Your task to perform on an android device: Set the phone to "Do not disturb". Image 0: 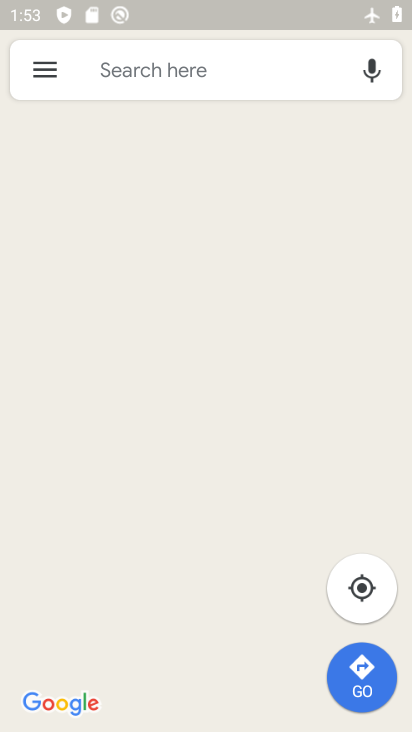
Step 0: press home button
Your task to perform on an android device: Set the phone to "Do not disturb". Image 1: 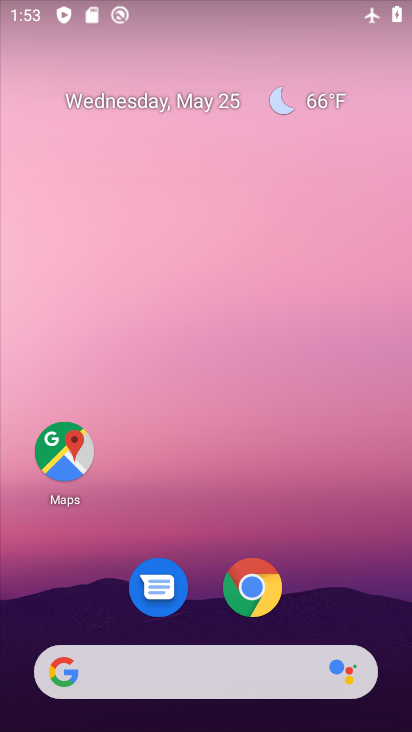
Step 1: drag from (351, 616) to (378, 336)
Your task to perform on an android device: Set the phone to "Do not disturb". Image 2: 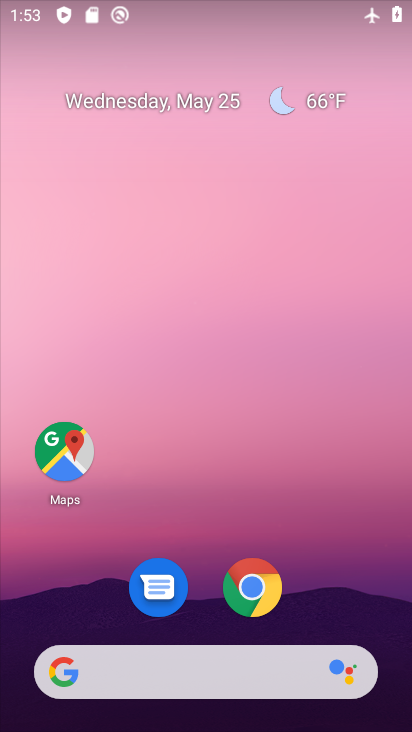
Step 2: drag from (388, 625) to (381, 188)
Your task to perform on an android device: Set the phone to "Do not disturb". Image 3: 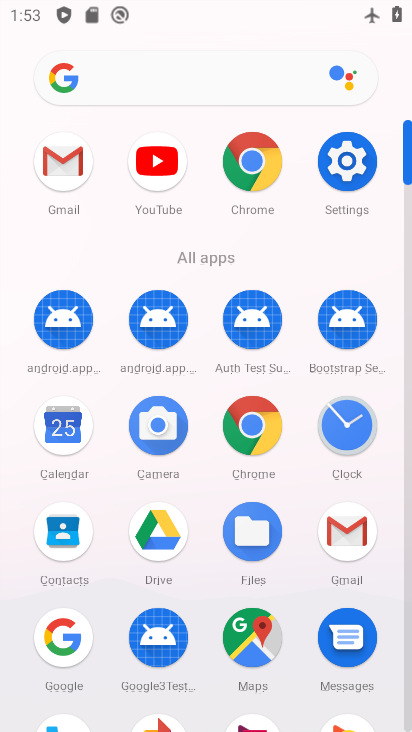
Step 3: click (343, 186)
Your task to perform on an android device: Set the phone to "Do not disturb". Image 4: 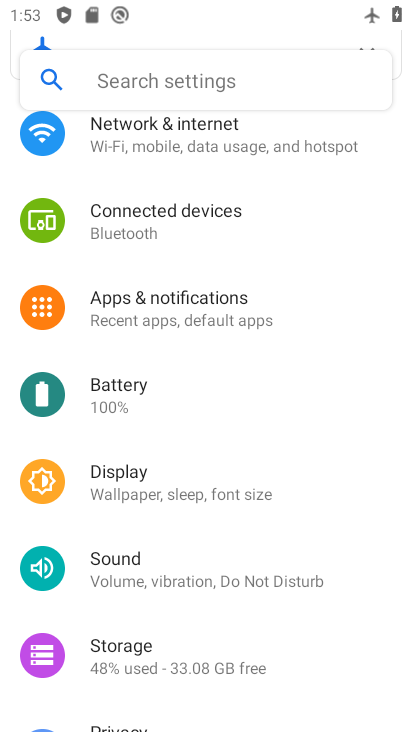
Step 4: drag from (351, 555) to (354, 372)
Your task to perform on an android device: Set the phone to "Do not disturb". Image 5: 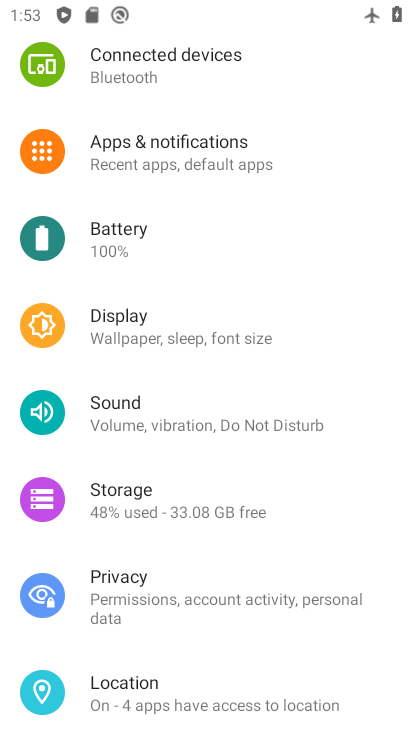
Step 5: drag from (368, 580) to (354, 426)
Your task to perform on an android device: Set the phone to "Do not disturb". Image 6: 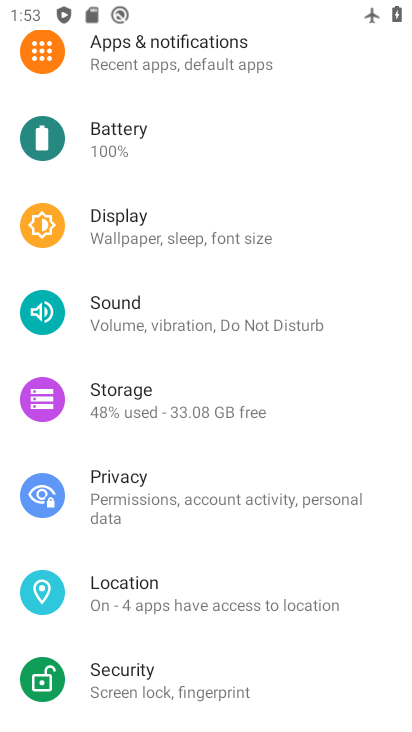
Step 6: drag from (359, 622) to (358, 483)
Your task to perform on an android device: Set the phone to "Do not disturb". Image 7: 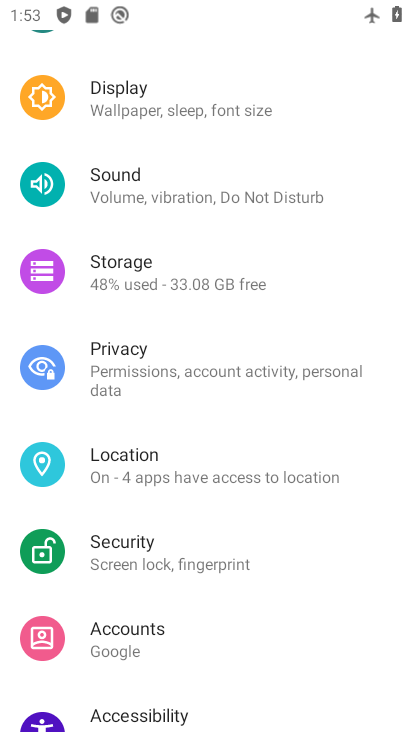
Step 7: drag from (371, 650) to (376, 450)
Your task to perform on an android device: Set the phone to "Do not disturb". Image 8: 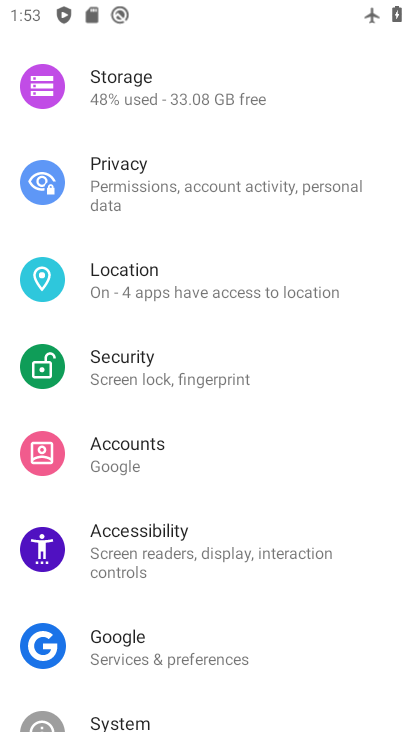
Step 8: drag from (362, 652) to (355, 471)
Your task to perform on an android device: Set the phone to "Do not disturb". Image 9: 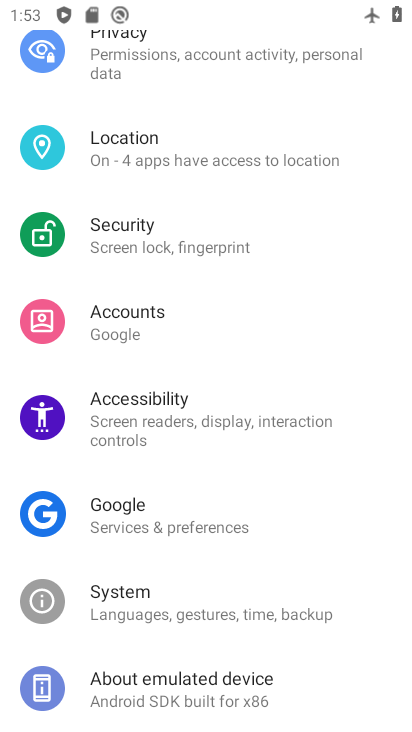
Step 9: drag from (340, 635) to (347, 443)
Your task to perform on an android device: Set the phone to "Do not disturb". Image 10: 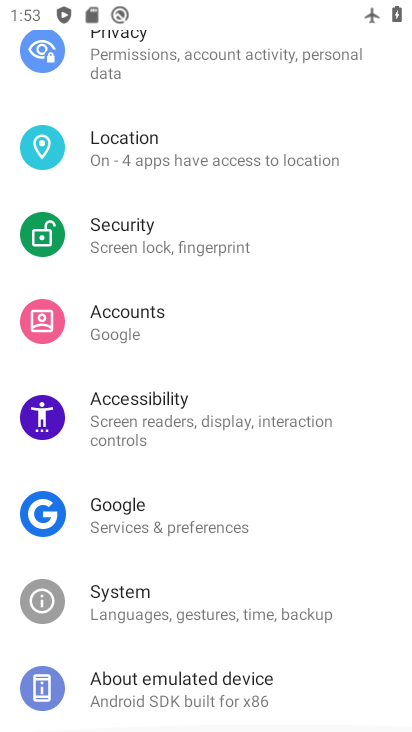
Step 10: drag from (347, 346) to (334, 520)
Your task to perform on an android device: Set the phone to "Do not disturb". Image 11: 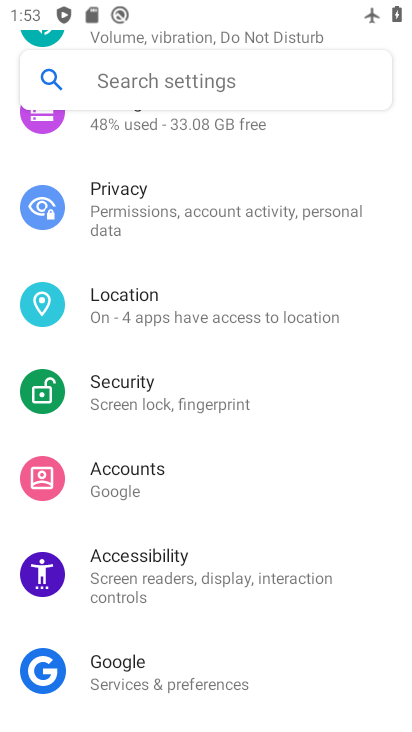
Step 11: drag from (344, 382) to (345, 501)
Your task to perform on an android device: Set the phone to "Do not disturb". Image 12: 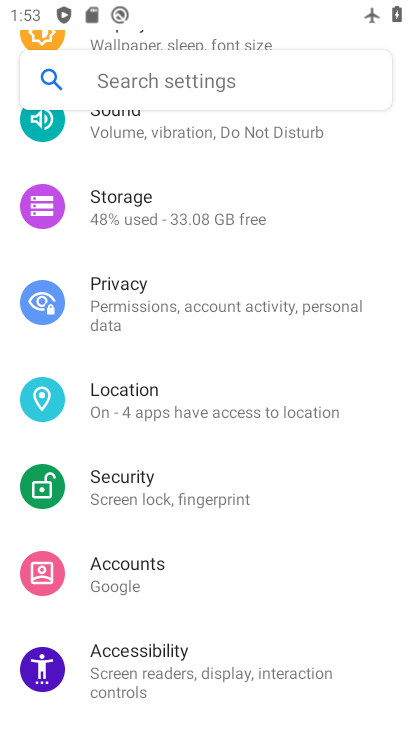
Step 12: drag from (366, 357) to (370, 468)
Your task to perform on an android device: Set the phone to "Do not disturb". Image 13: 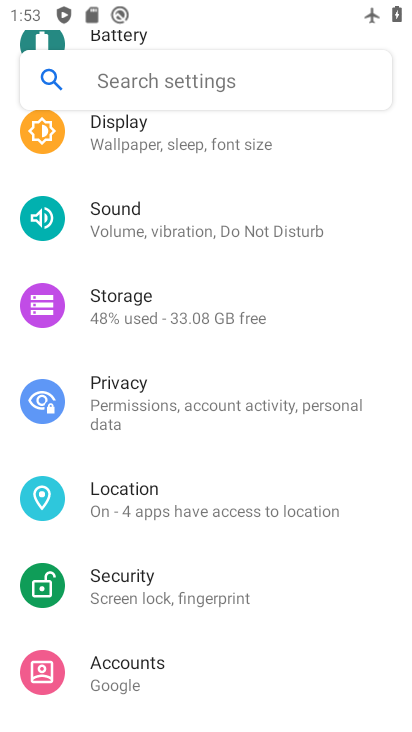
Step 13: drag from (368, 323) to (353, 449)
Your task to perform on an android device: Set the phone to "Do not disturb". Image 14: 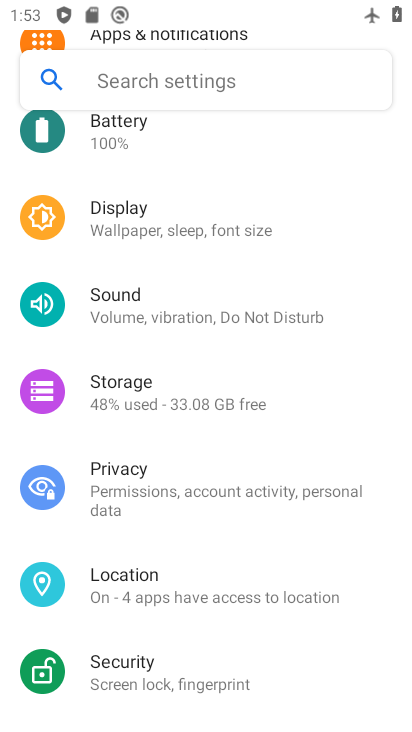
Step 14: drag from (349, 329) to (349, 459)
Your task to perform on an android device: Set the phone to "Do not disturb". Image 15: 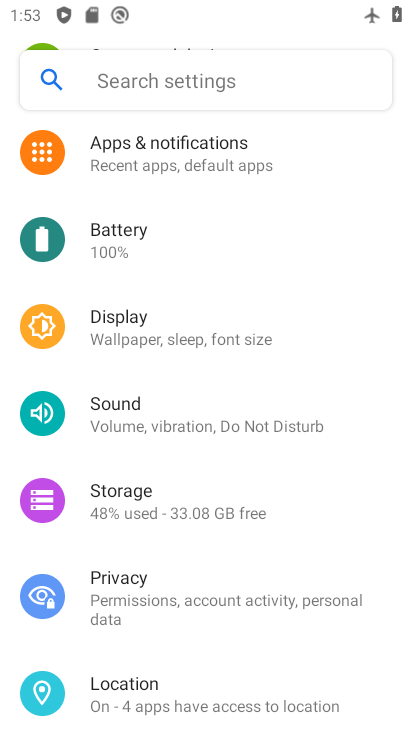
Step 15: drag from (335, 365) to (336, 470)
Your task to perform on an android device: Set the phone to "Do not disturb". Image 16: 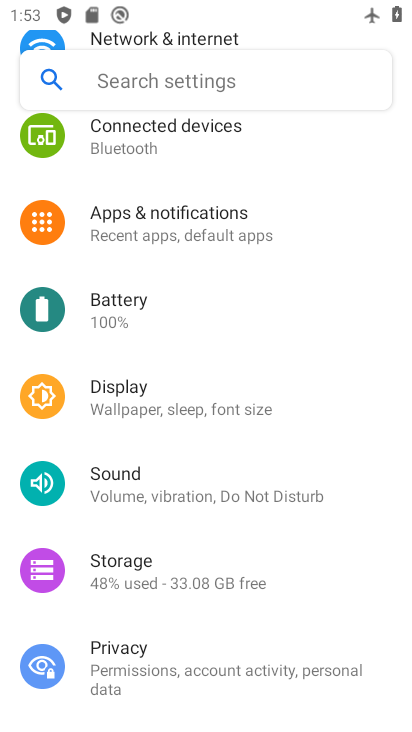
Step 16: drag from (334, 245) to (334, 421)
Your task to perform on an android device: Set the phone to "Do not disturb". Image 17: 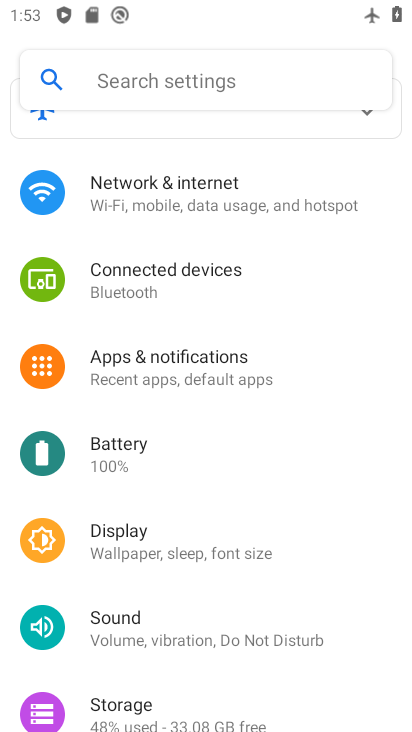
Step 17: drag from (338, 324) to (350, 461)
Your task to perform on an android device: Set the phone to "Do not disturb". Image 18: 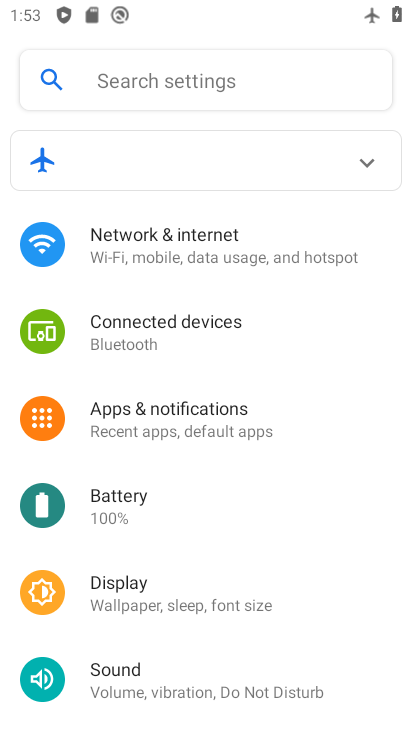
Step 18: drag from (344, 514) to (341, 371)
Your task to perform on an android device: Set the phone to "Do not disturb". Image 19: 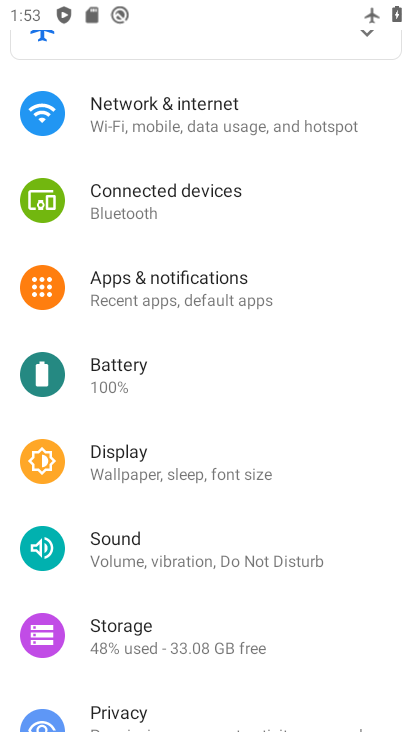
Step 19: drag from (360, 564) to (362, 391)
Your task to perform on an android device: Set the phone to "Do not disturb". Image 20: 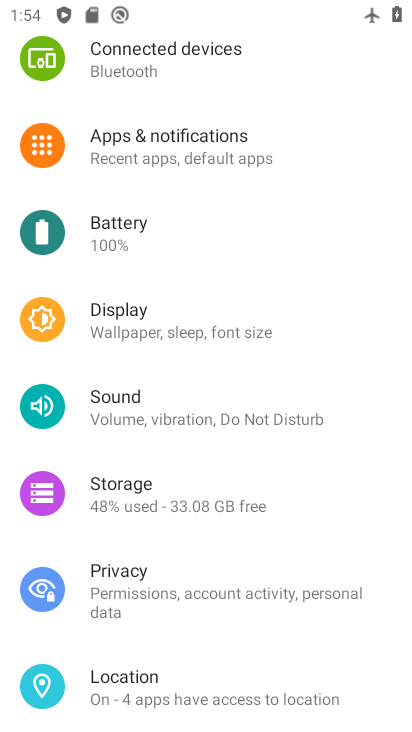
Step 20: click (224, 432)
Your task to perform on an android device: Set the phone to "Do not disturb". Image 21: 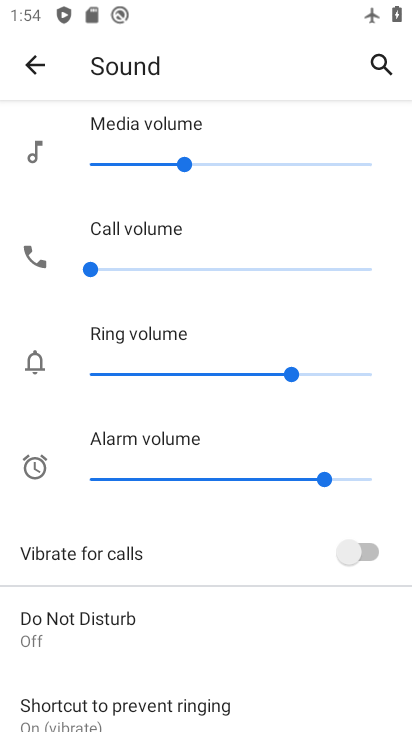
Step 21: drag from (224, 619) to (233, 442)
Your task to perform on an android device: Set the phone to "Do not disturb". Image 22: 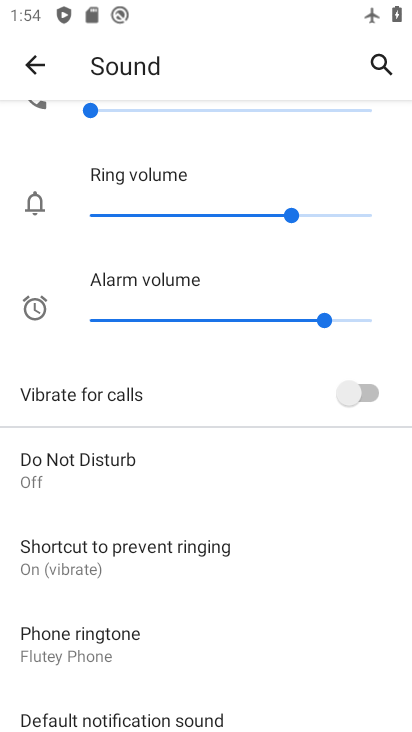
Step 22: click (138, 488)
Your task to perform on an android device: Set the phone to "Do not disturb". Image 23: 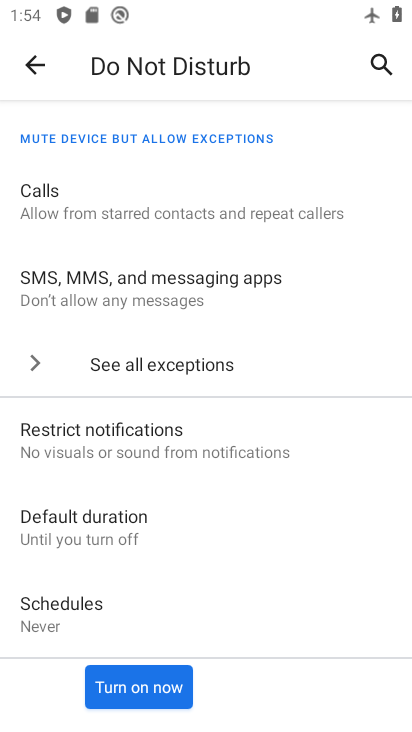
Step 23: click (150, 689)
Your task to perform on an android device: Set the phone to "Do not disturb". Image 24: 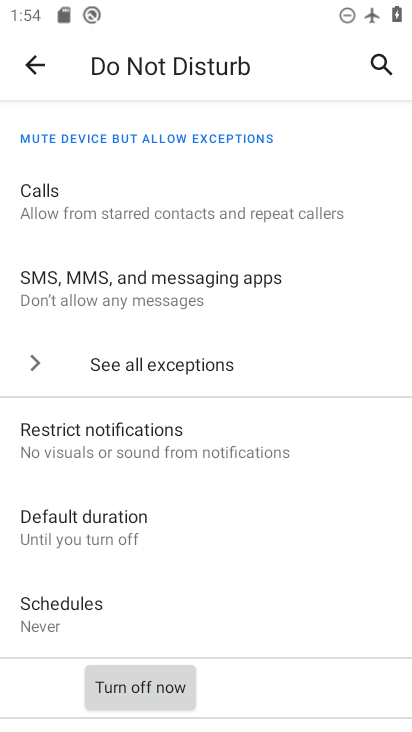
Step 24: task complete